Your task to perform on an android device: toggle improve location accuracy Image 0: 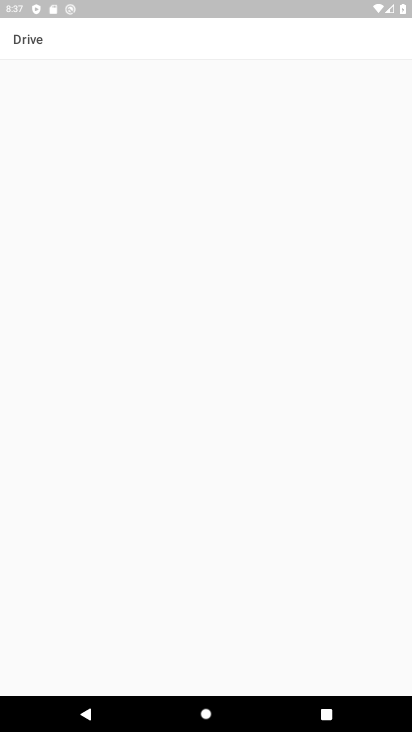
Step 0: press home button
Your task to perform on an android device: toggle improve location accuracy Image 1: 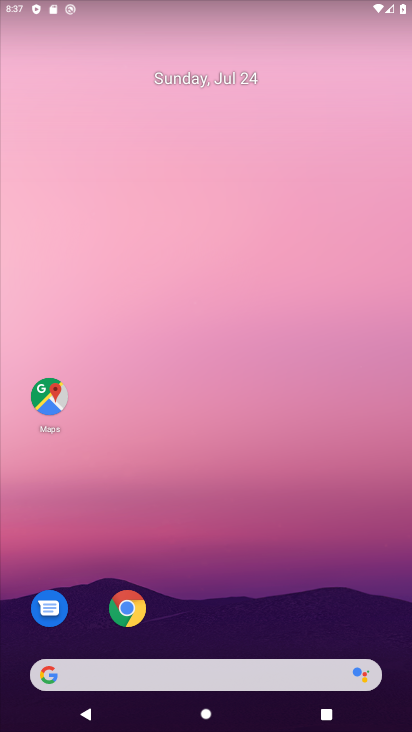
Step 1: drag from (235, 632) to (214, 24)
Your task to perform on an android device: toggle improve location accuracy Image 2: 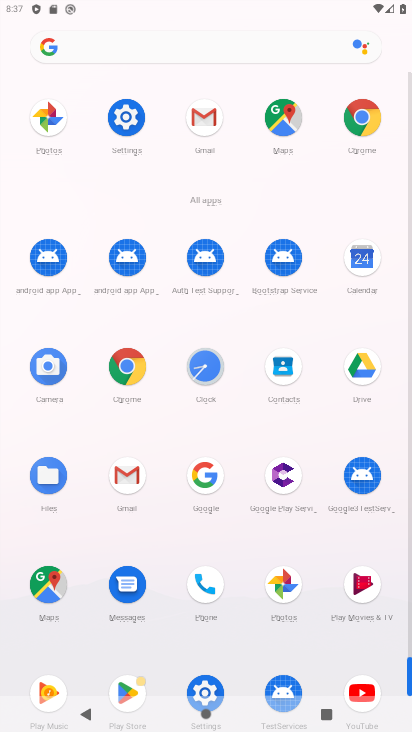
Step 2: drag from (233, 659) to (257, 438)
Your task to perform on an android device: toggle improve location accuracy Image 3: 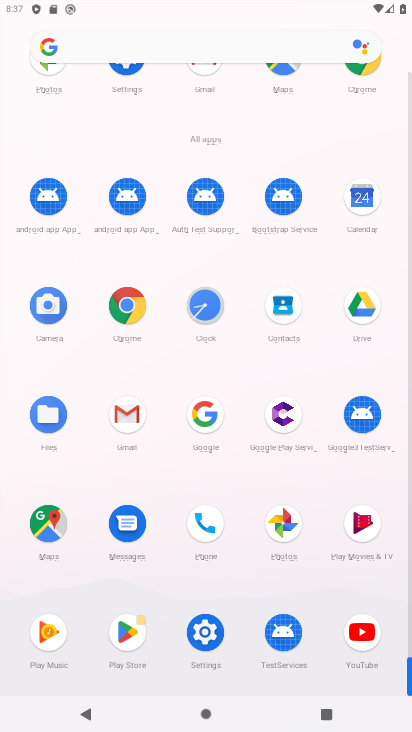
Step 3: click (192, 641)
Your task to perform on an android device: toggle improve location accuracy Image 4: 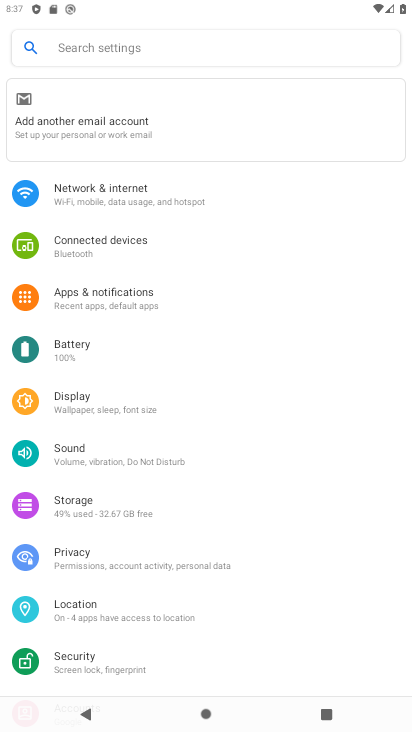
Step 4: click (120, 615)
Your task to perform on an android device: toggle improve location accuracy Image 5: 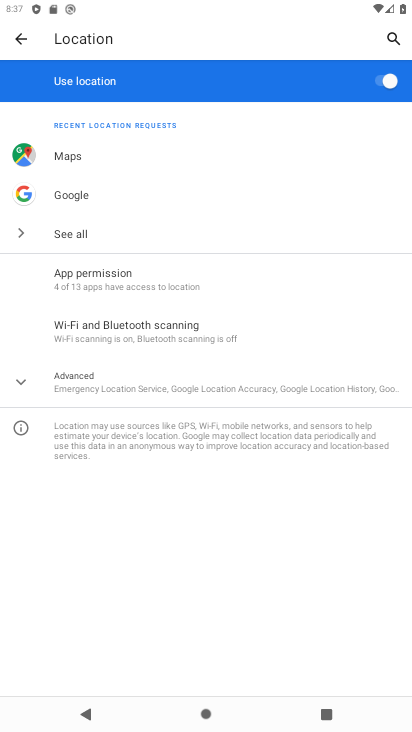
Step 5: click (127, 391)
Your task to perform on an android device: toggle improve location accuracy Image 6: 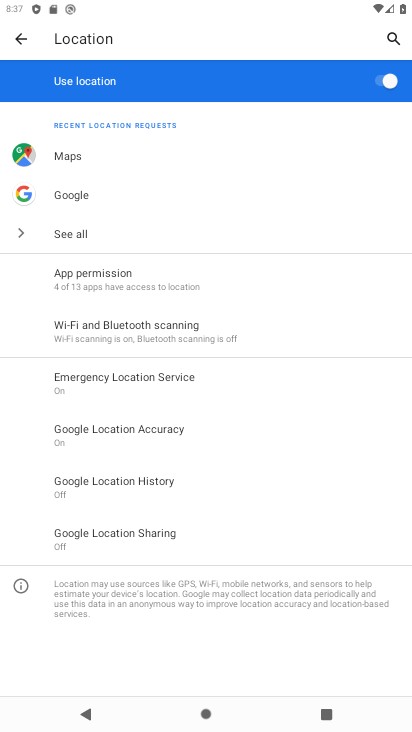
Step 6: click (130, 433)
Your task to perform on an android device: toggle improve location accuracy Image 7: 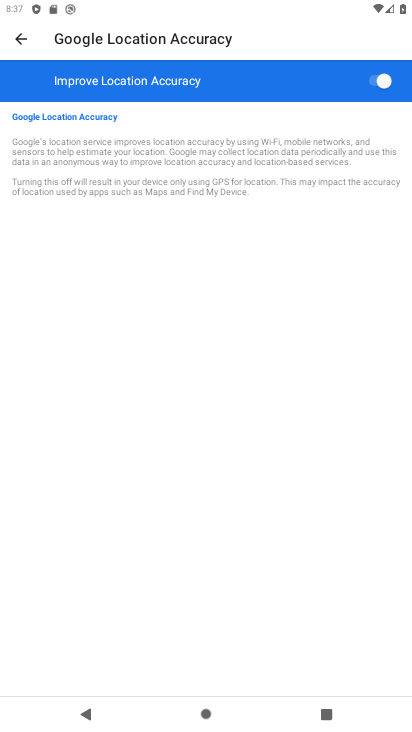
Step 7: click (362, 88)
Your task to perform on an android device: toggle improve location accuracy Image 8: 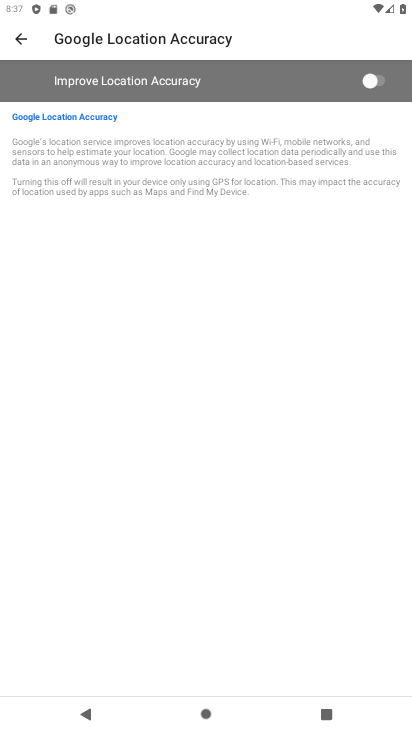
Step 8: task complete